Your task to perform on an android device: Open accessibility settings Image 0: 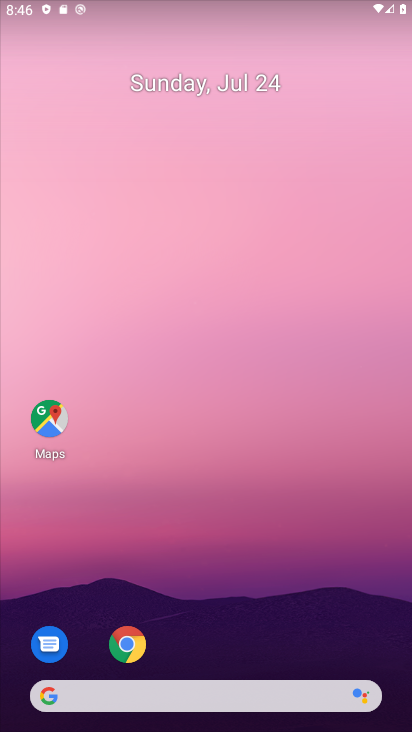
Step 0: drag from (284, 655) to (266, 276)
Your task to perform on an android device: Open accessibility settings Image 1: 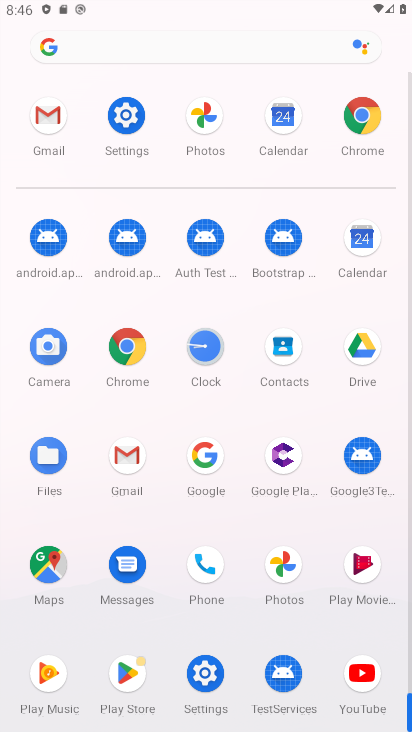
Step 1: click (115, 114)
Your task to perform on an android device: Open accessibility settings Image 2: 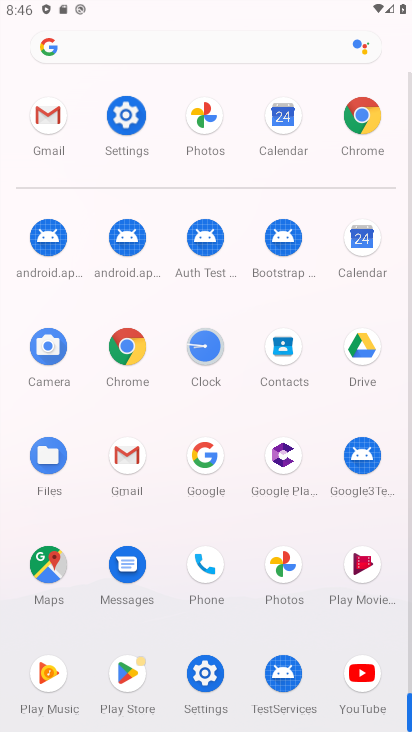
Step 2: click (118, 117)
Your task to perform on an android device: Open accessibility settings Image 3: 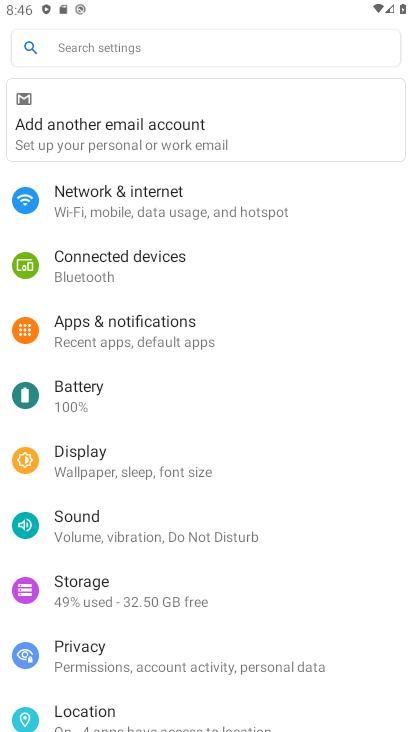
Step 3: drag from (148, 635) to (181, 272)
Your task to perform on an android device: Open accessibility settings Image 4: 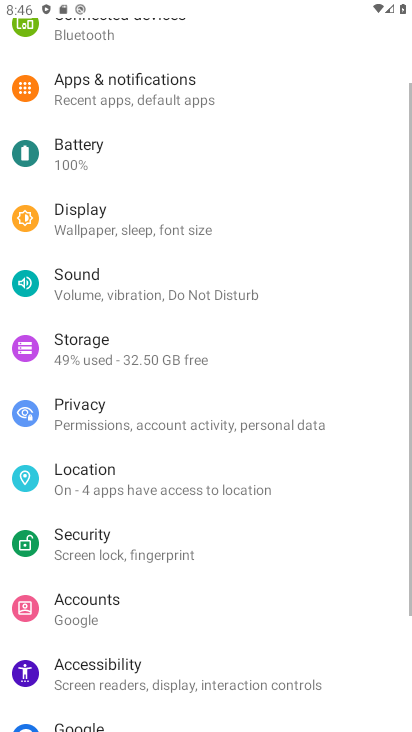
Step 4: drag from (126, 569) to (138, 313)
Your task to perform on an android device: Open accessibility settings Image 5: 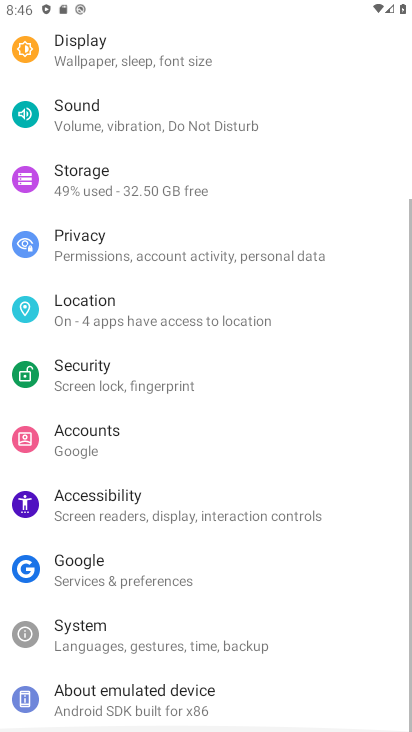
Step 5: drag from (95, 463) to (137, 294)
Your task to perform on an android device: Open accessibility settings Image 6: 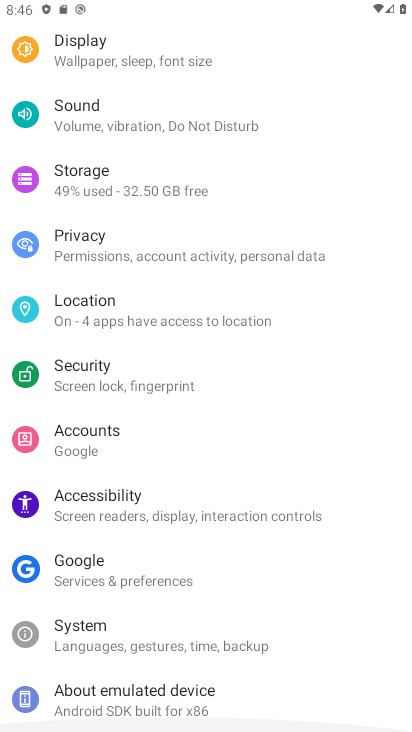
Step 6: drag from (164, 487) to (203, 217)
Your task to perform on an android device: Open accessibility settings Image 7: 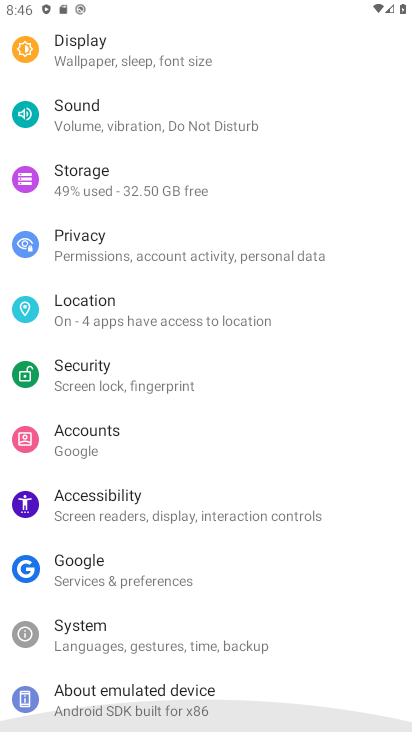
Step 7: drag from (136, 489) to (136, 342)
Your task to perform on an android device: Open accessibility settings Image 8: 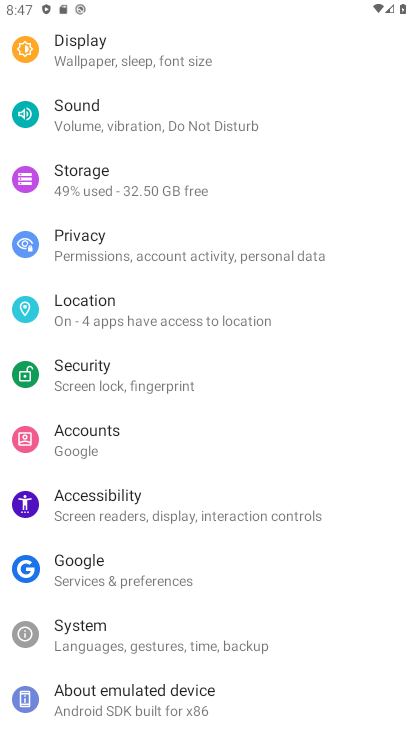
Step 8: click (112, 510)
Your task to perform on an android device: Open accessibility settings Image 9: 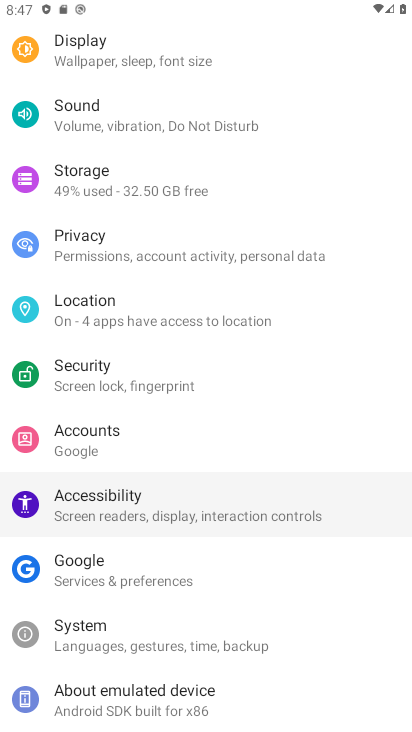
Step 9: click (110, 508)
Your task to perform on an android device: Open accessibility settings Image 10: 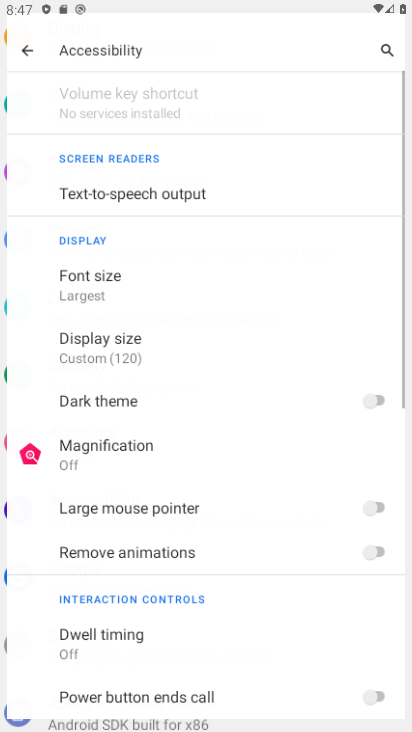
Step 10: click (109, 507)
Your task to perform on an android device: Open accessibility settings Image 11: 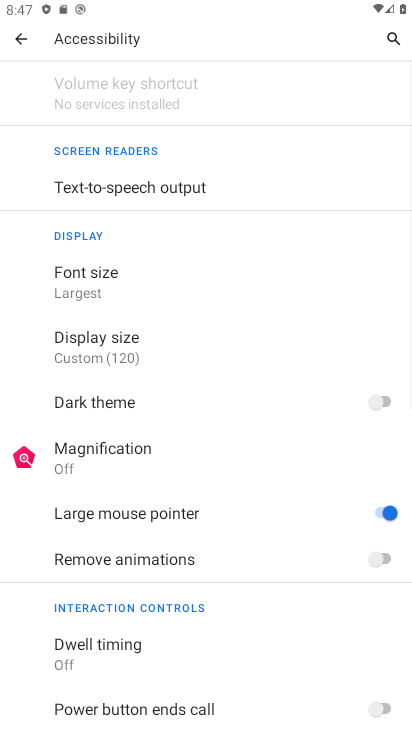
Step 11: task complete